Your task to perform on an android device: Open Amazon Image 0: 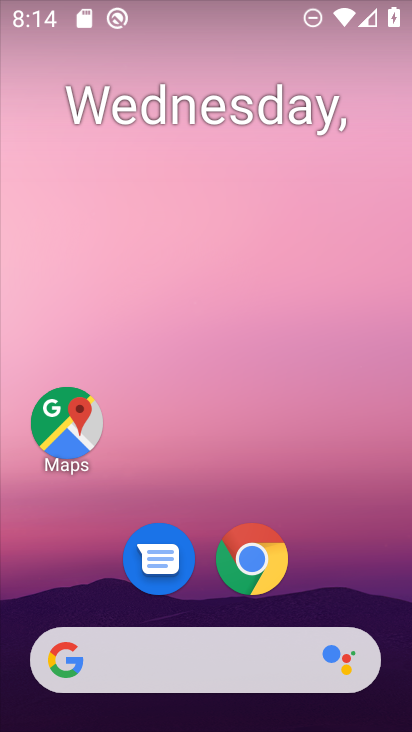
Step 0: click (272, 557)
Your task to perform on an android device: Open Amazon Image 1: 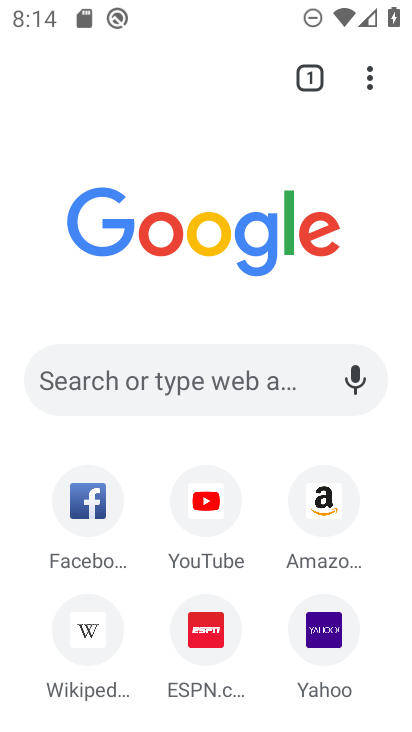
Step 1: click (330, 514)
Your task to perform on an android device: Open Amazon Image 2: 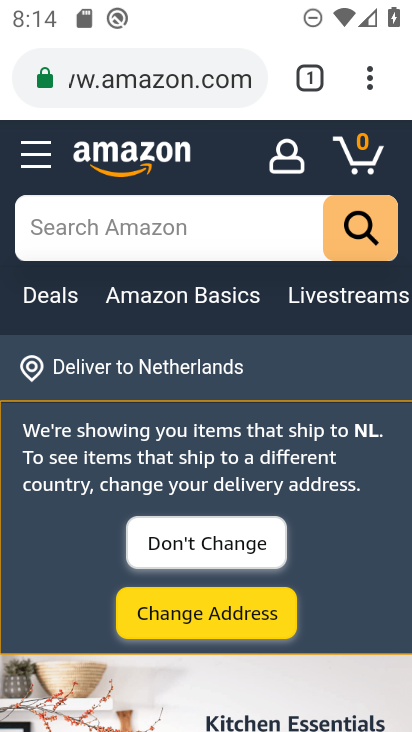
Step 2: task complete